Your task to perform on an android device: turn on airplane mode Image 0: 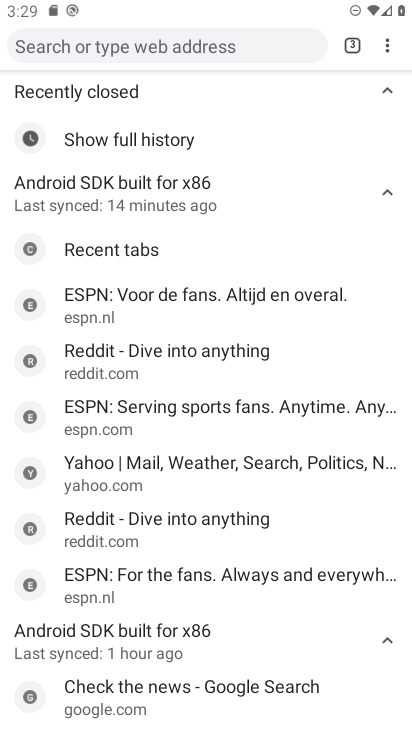
Step 0: press back button
Your task to perform on an android device: turn on airplane mode Image 1: 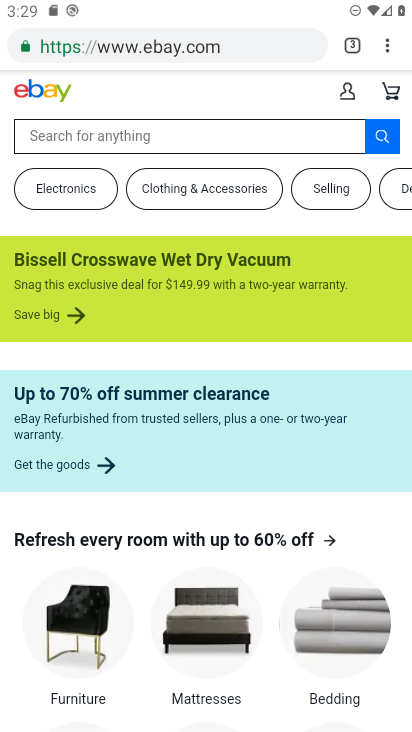
Step 1: press back button
Your task to perform on an android device: turn on airplane mode Image 2: 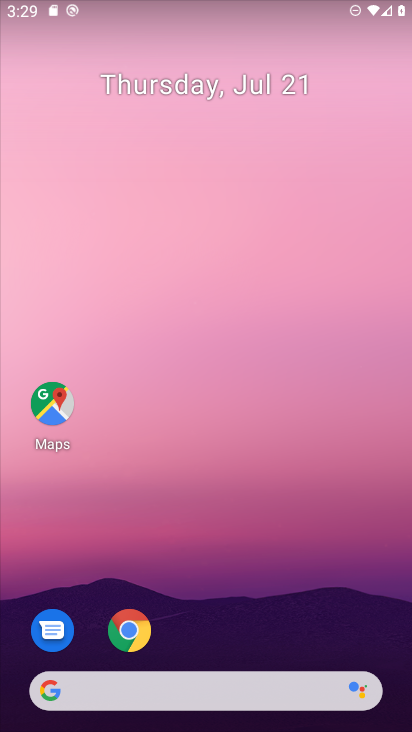
Step 2: drag from (359, 28) to (197, 731)
Your task to perform on an android device: turn on airplane mode Image 3: 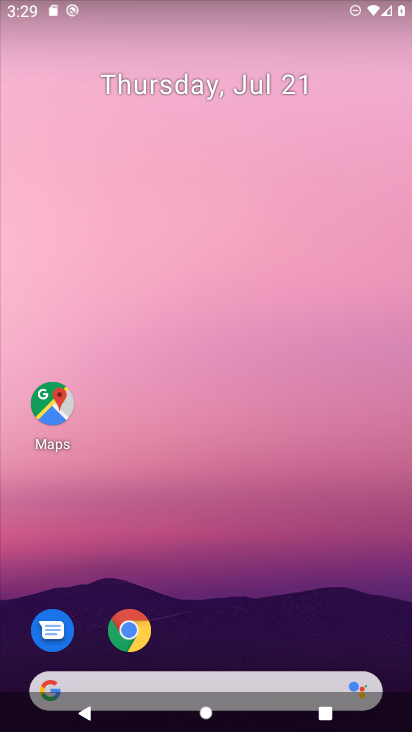
Step 3: drag from (357, 7) to (270, 653)
Your task to perform on an android device: turn on airplane mode Image 4: 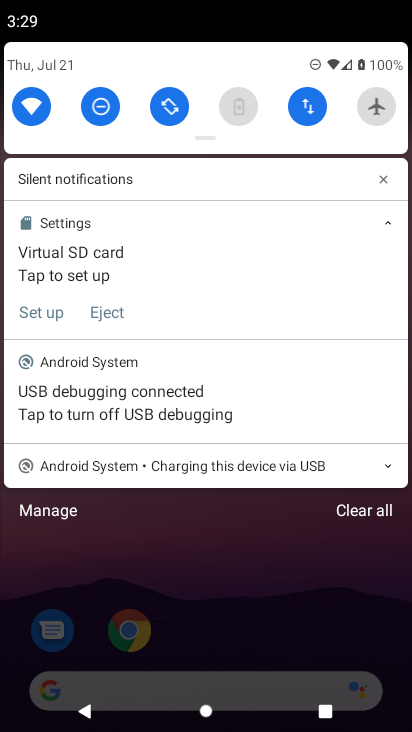
Step 4: click (369, 104)
Your task to perform on an android device: turn on airplane mode Image 5: 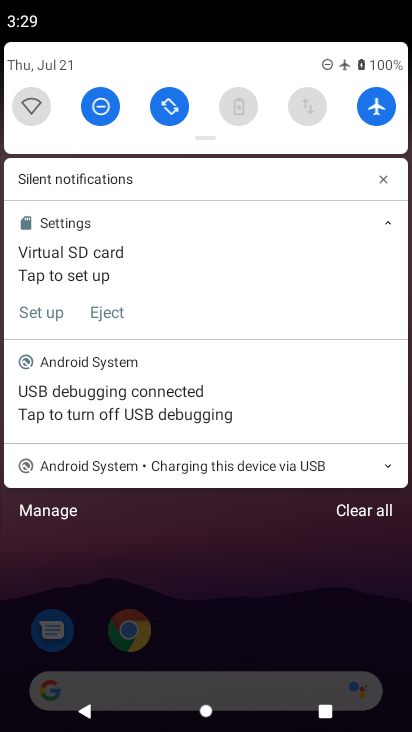
Step 5: task complete